Your task to perform on an android device: Open Google Maps and go to "Timeline" Image 0: 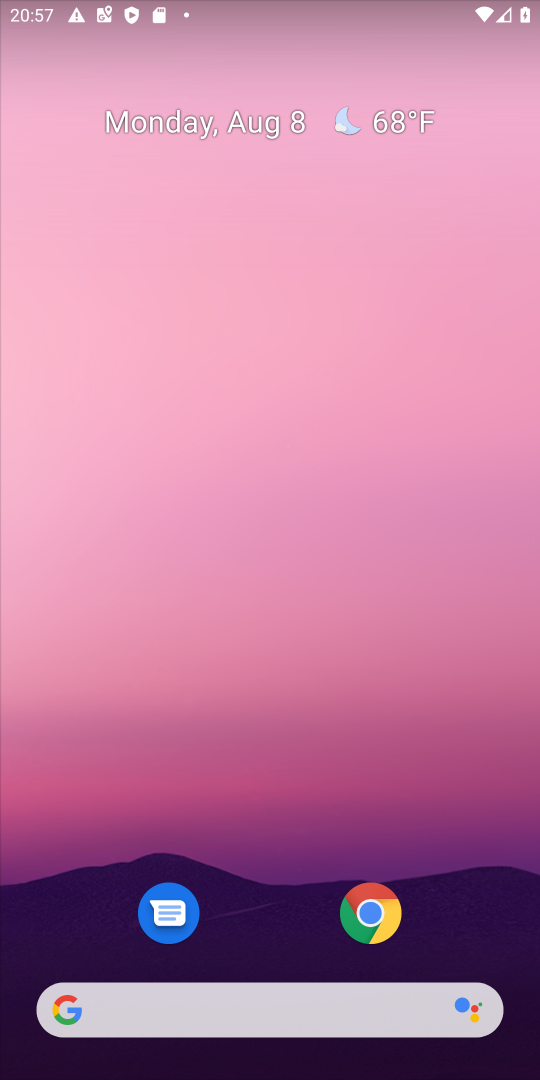
Step 0: press home button
Your task to perform on an android device: Open Google Maps and go to "Timeline" Image 1: 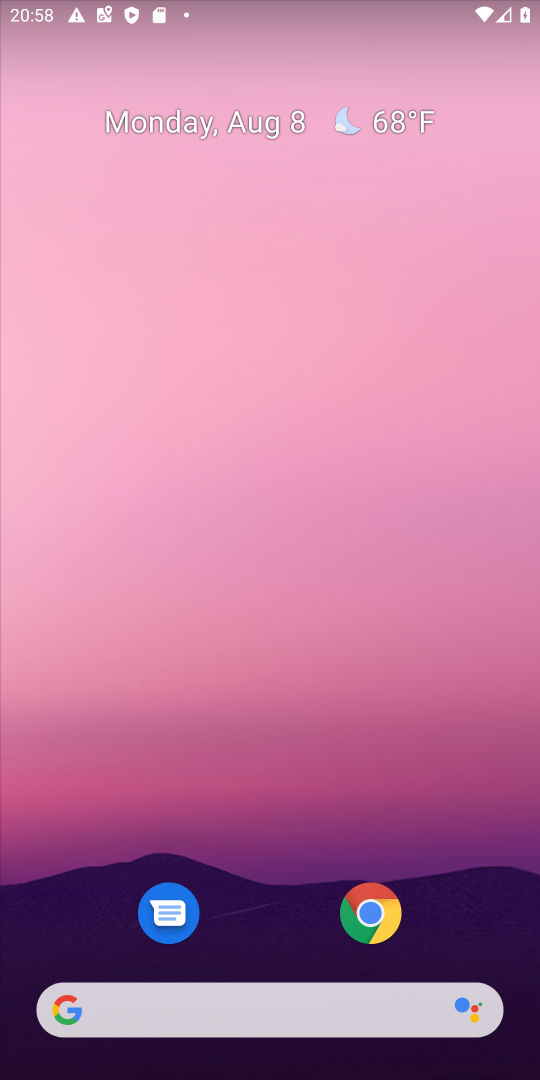
Step 1: press home button
Your task to perform on an android device: Open Google Maps and go to "Timeline" Image 2: 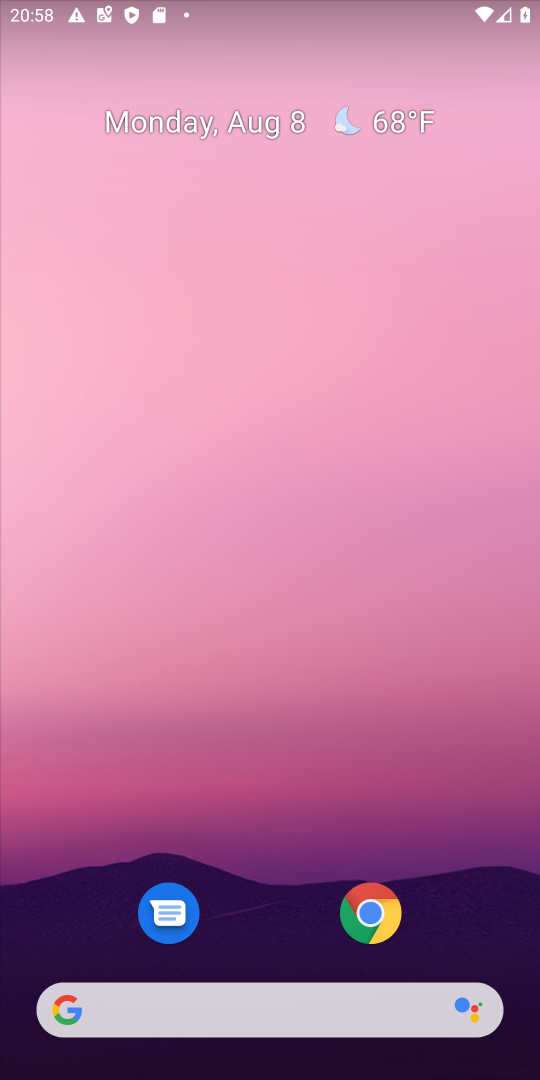
Step 2: drag from (248, 1007) to (378, 192)
Your task to perform on an android device: Open Google Maps and go to "Timeline" Image 3: 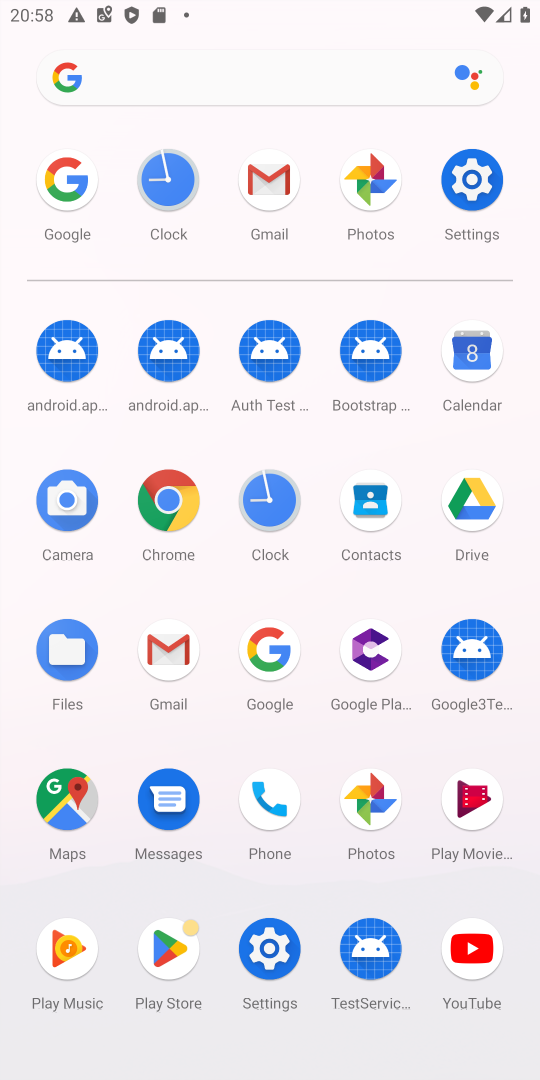
Step 3: click (67, 800)
Your task to perform on an android device: Open Google Maps and go to "Timeline" Image 4: 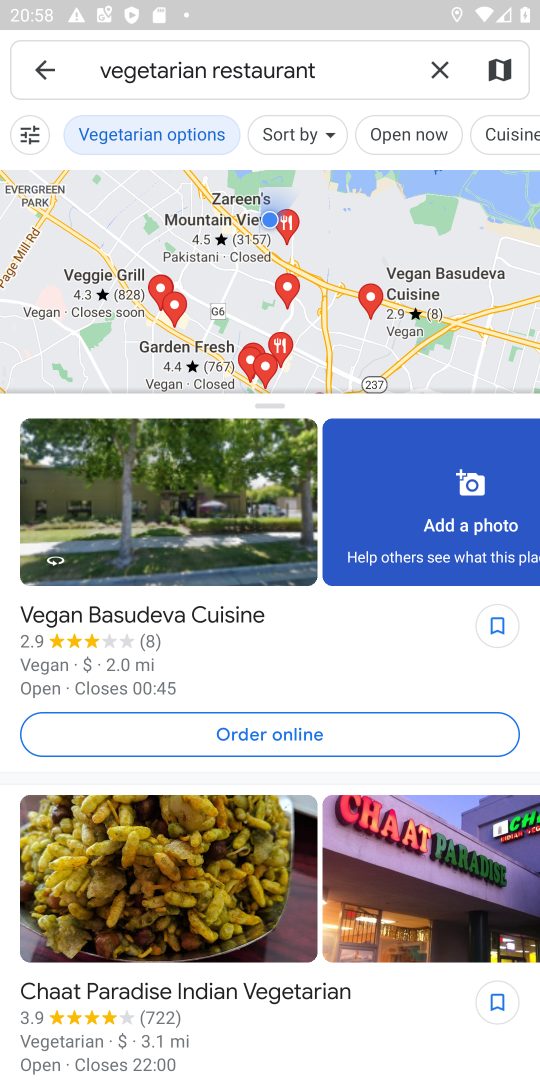
Step 4: click (441, 72)
Your task to perform on an android device: Open Google Maps and go to "Timeline" Image 5: 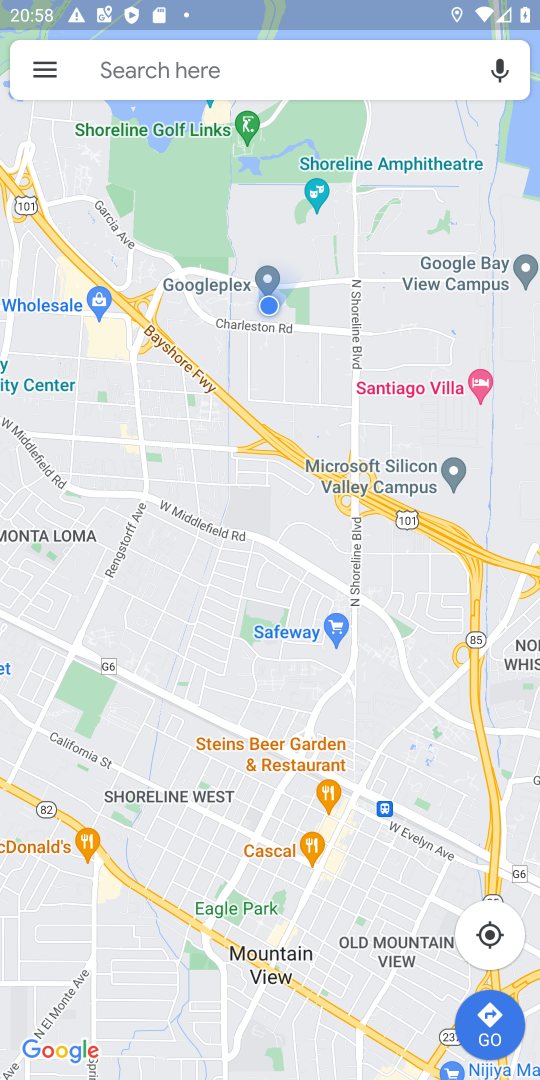
Step 5: click (47, 72)
Your task to perform on an android device: Open Google Maps and go to "Timeline" Image 6: 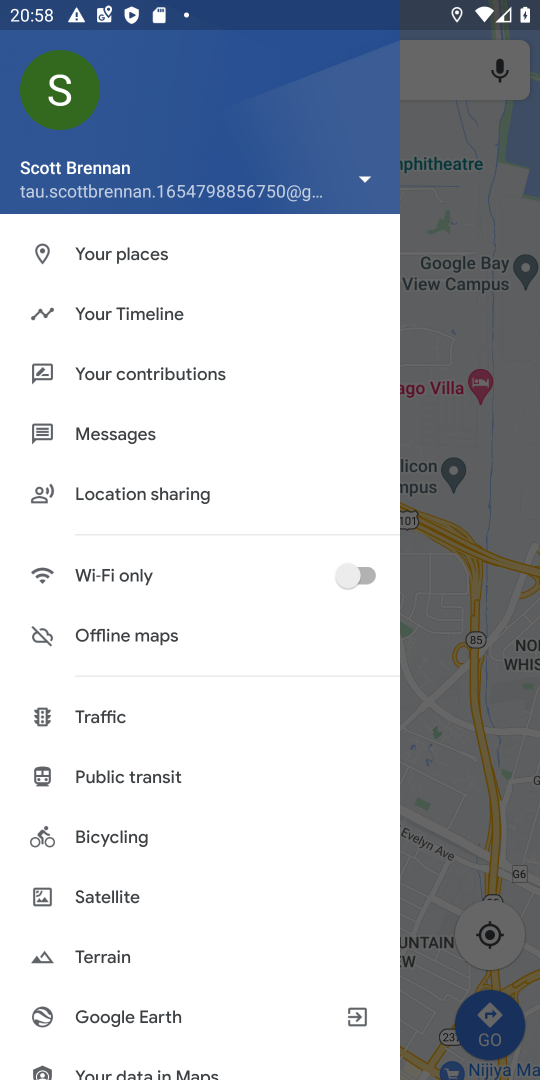
Step 6: click (141, 309)
Your task to perform on an android device: Open Google Maps and go to "Timeline" Image 7: 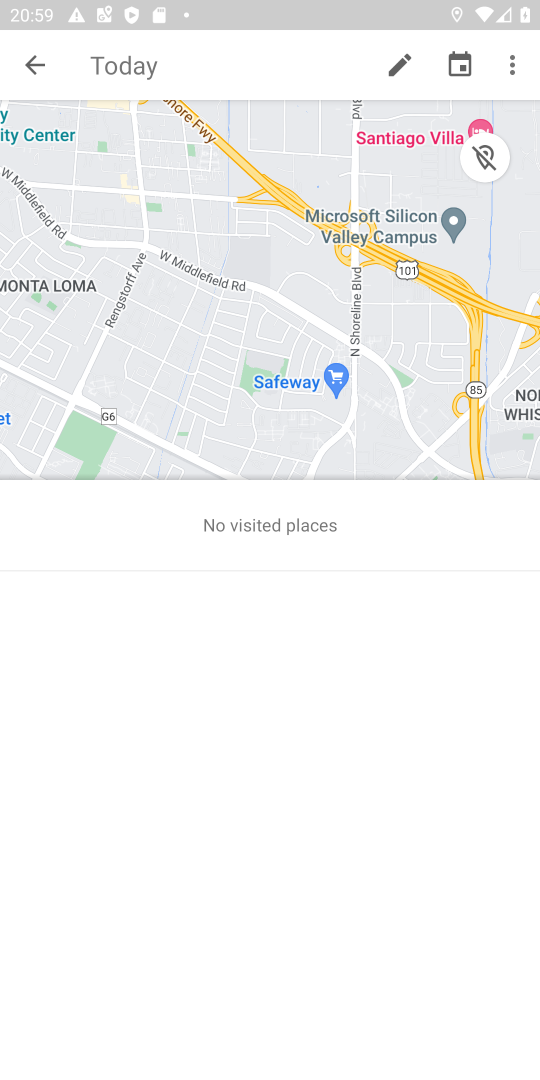
Step 7: task complete